Your task to perform on an android device: turn off sleep mode Image 0: 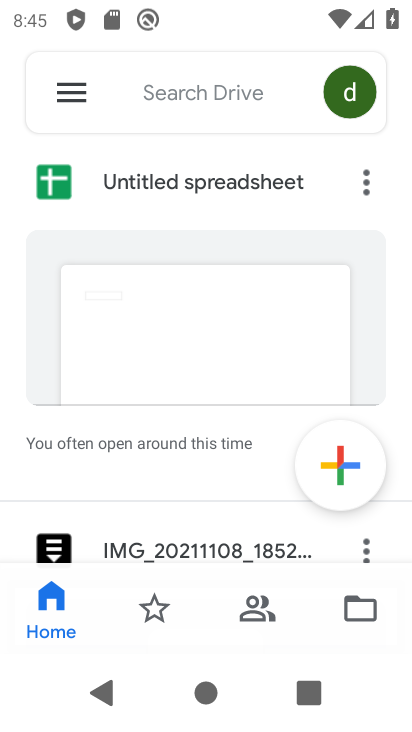
Step 0: press home button
Your task to perform on an android device: turn off sleep mode Image 1: 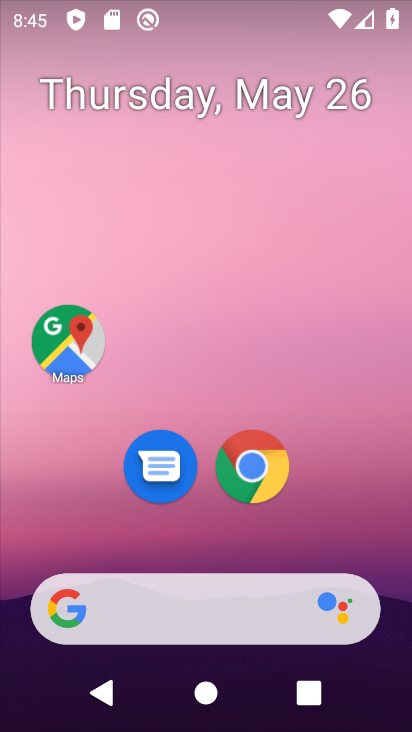
Step 1: drag from (347, 528) to (252, 29)
Your task to perform on an android device: turn off sleep mode Image 2: 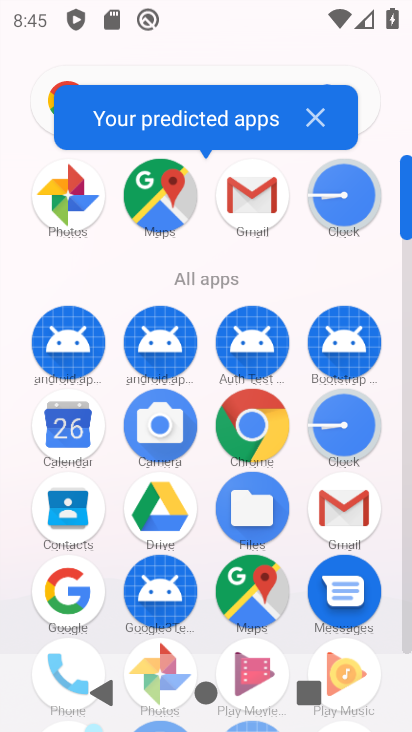
Step 2: drag from (209, 592) to (193, 183)
Your task to perform on an android device: turn off sleep mode Image 3: 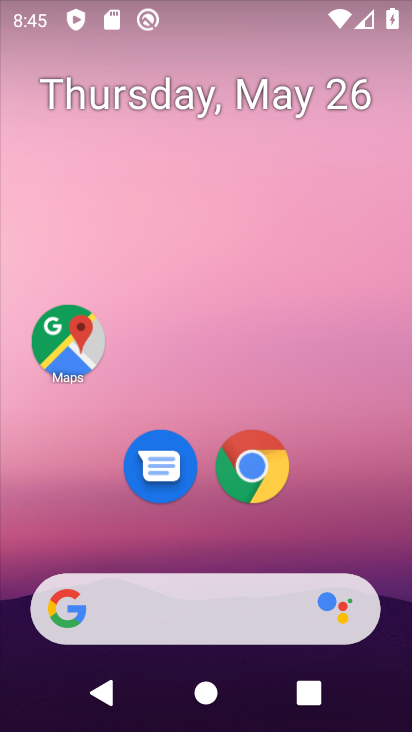
Step 3: drag from (331, 511) to (298, 48)
Your task to perform on an android device: turn off sleep mode Image 4: 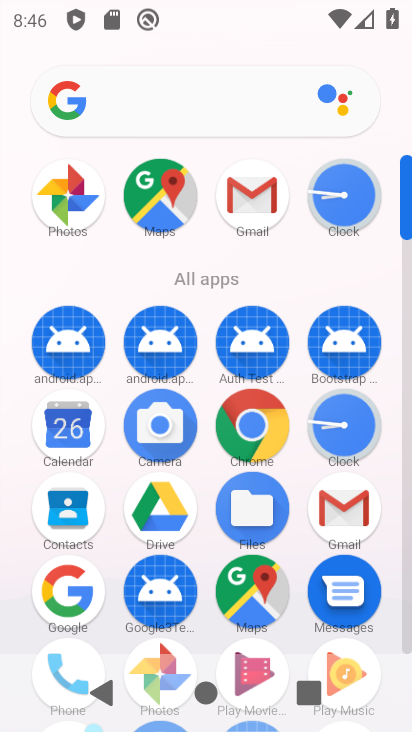
Step 4: drag from (203, 453) to (175, 123)
Your task to perform on an android device: turn off sleep mode Image 5: 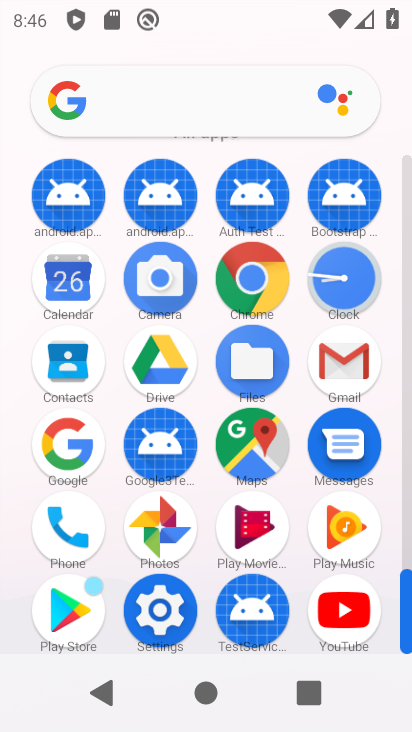
Step 5: click (164, 601)
Your task to perform on an android device: turn off sleep mode Image 6: 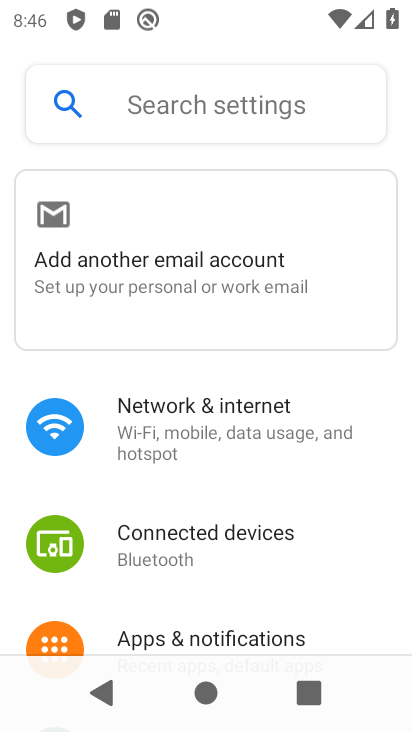
Step 6: drag from (337, 600) to (289, 257)
Your task to perform on an android device: turn off sleep mode Image 7: 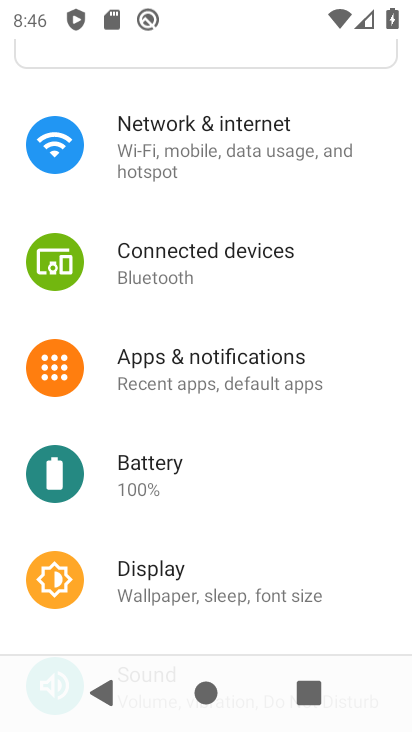
Step 7: click (204, 366)
Your task to perform on an android device: turn off sleep mode Image 8: 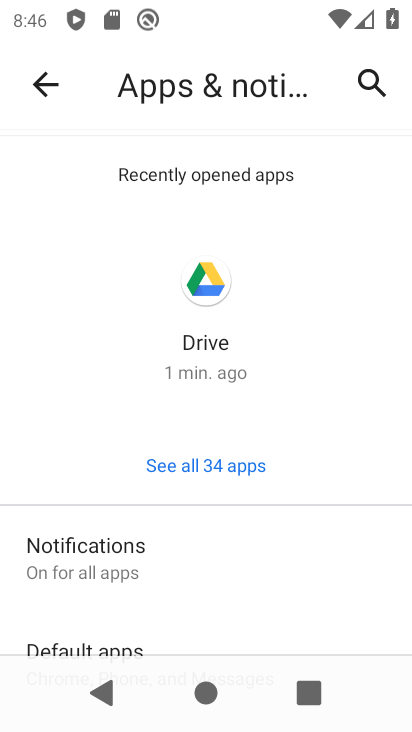
Step 8: task complete